Your task to perform on an android device: delete location history Image 0: 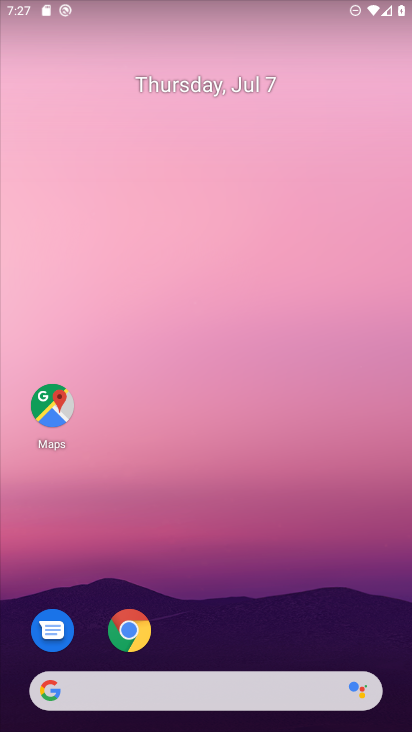
Step 0: click (43, 409)
Your task to perform on an android device: delete location history Image 1: 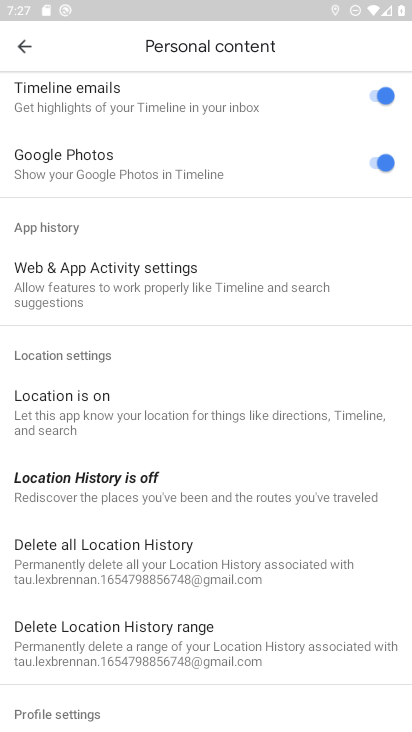
Step 1: click (117, 541)
Your task to perform on an android device: delete location history Image 2: 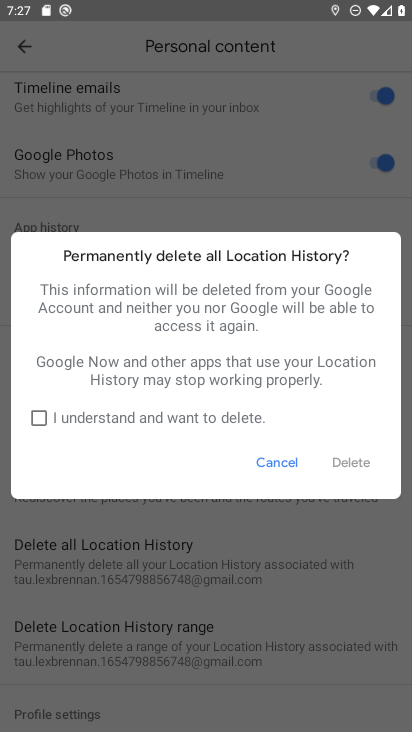
Step 2: click (35, 420)
Your task to perform on an android device: delete location history Image 3: 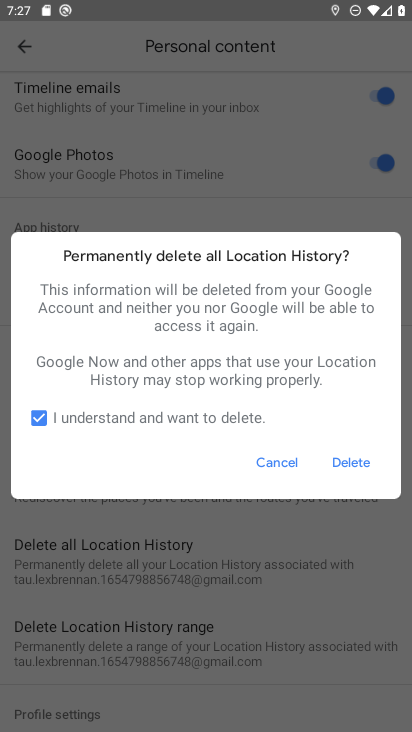
Step 3: click (351, 462)
Your task to perform on an android device: delete location history Image 4: 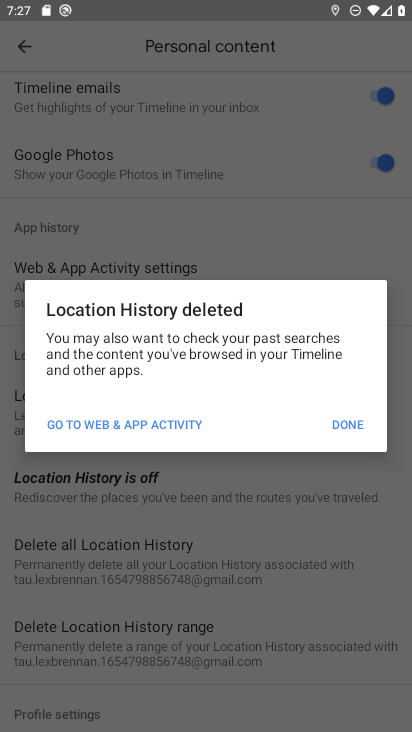
Step 4: click (348, 427)
Your task to perform on an android device: delete location history Image 5: 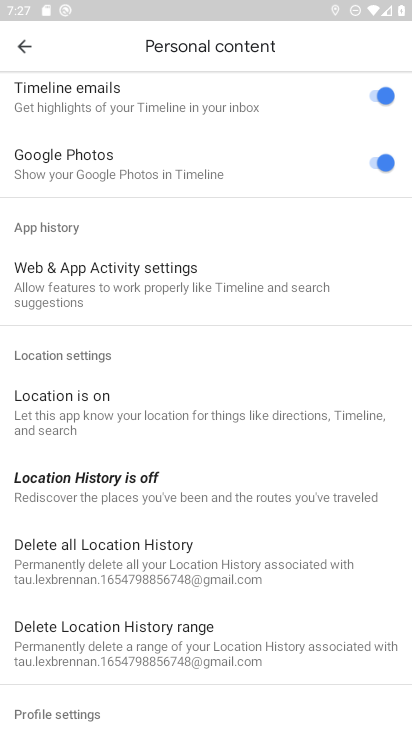
Step 5: task complete